Your task to perform on an android device: set default search engine in the chrome app Image 0: 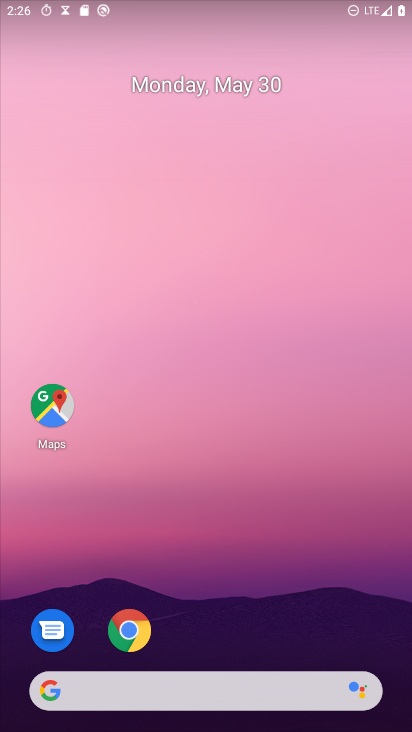
Step 0: drag from (291, 709) to (307, 124)
Your task to perform on an android device: set default search engine in the chrome app Image 1: 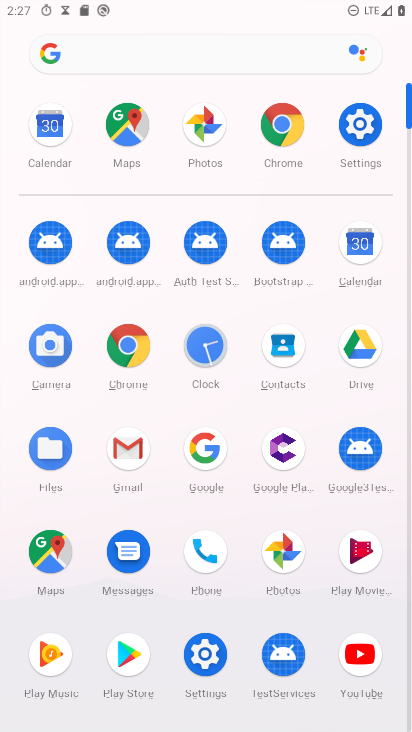
Step 1: click (294, 116)
Your task to perform on an android device: set default search engine in the chrome app Image 2: 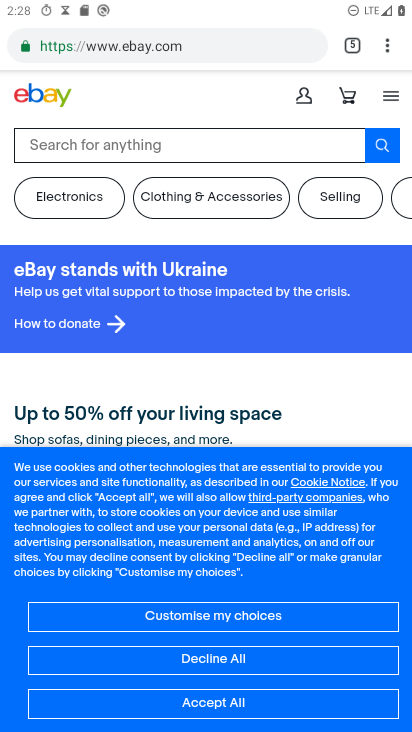
Step 2: click (381, 55)
Your task to perform on an android device: set default search engine in the chrome app Image 3: 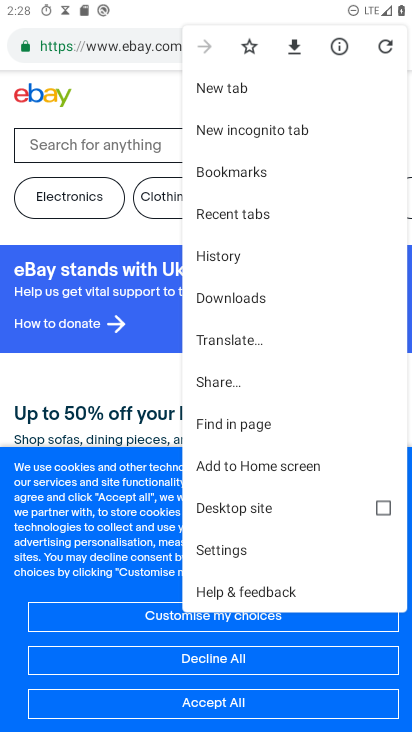
Step 3: click (246, 559)
Your task to perform on an android device: set default search engine in the chrome app Image 4: 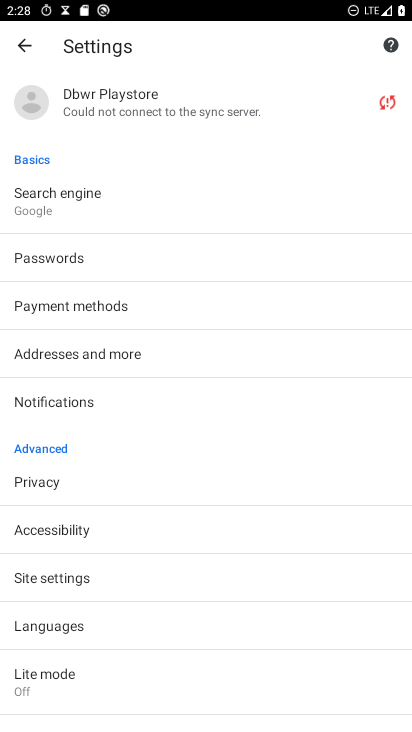
Step 4: click (56, 206)
Your task to perform on an android device: set default search engine in the chrome app Image 5: 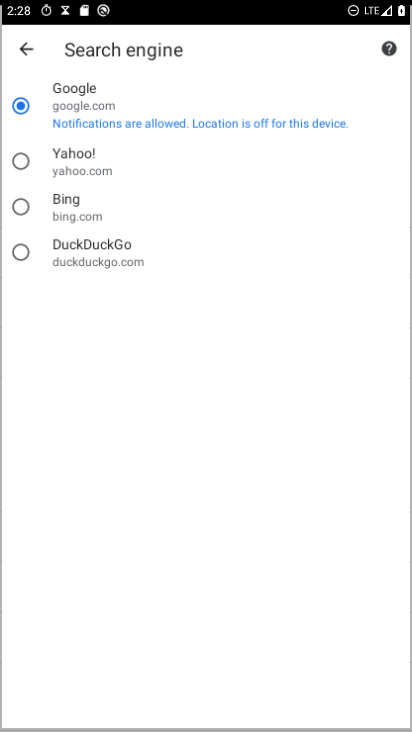
Step 5: click (44, 213)
Your task to perform on an android device: set default search engine in the chrome app Image 6: 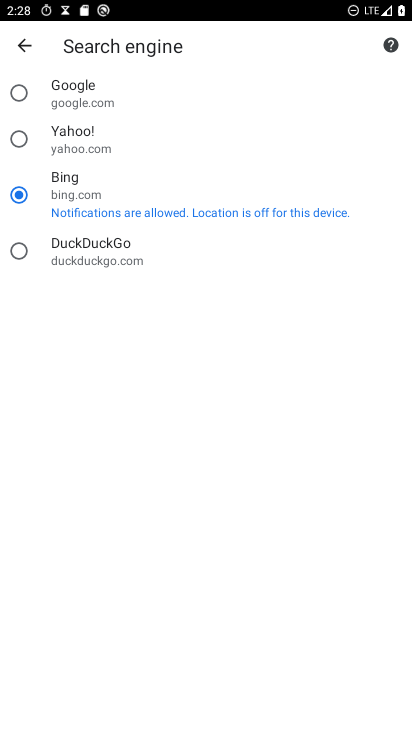
Step 6: click (29, 100)
Your task to perform on an android device: set default search engine in the chrome app Image 7: 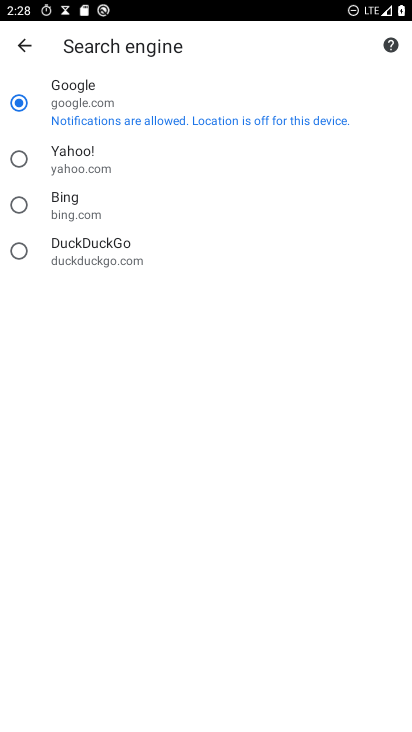
Step 7: task complete